Your task to perform on an android device: Open calendar and show me the third week of next month Image 0: 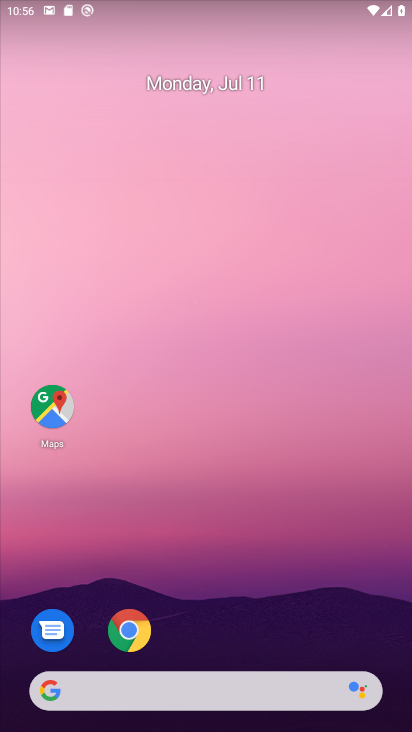
Step 0: drag from (169, 550) to (203, 177)
Your task to perform on an android device: Open calendar and show me the third week of next month Image 1: 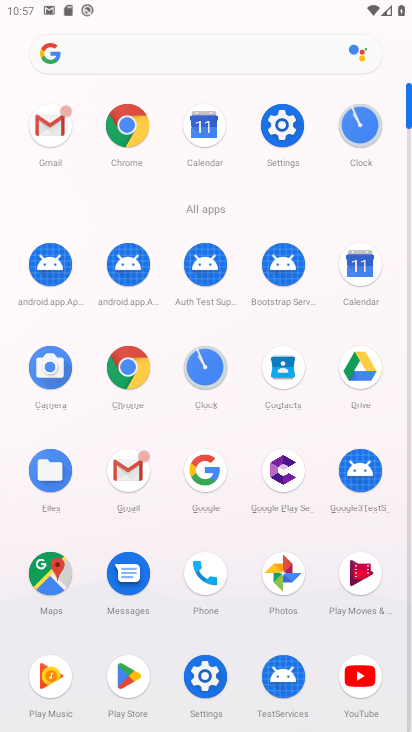
Step 1: drag from (161, 537) to (165, 330)
Your task to perform on an android device: Open calendar and show me the third week of next month Image 2: 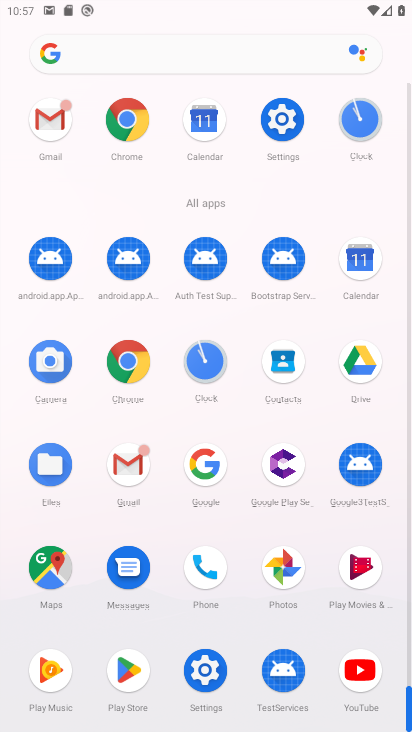
Step 2: click (213, 139)
Your task to perform on an android device: Open calendar and show me the third week of next month Image 3: 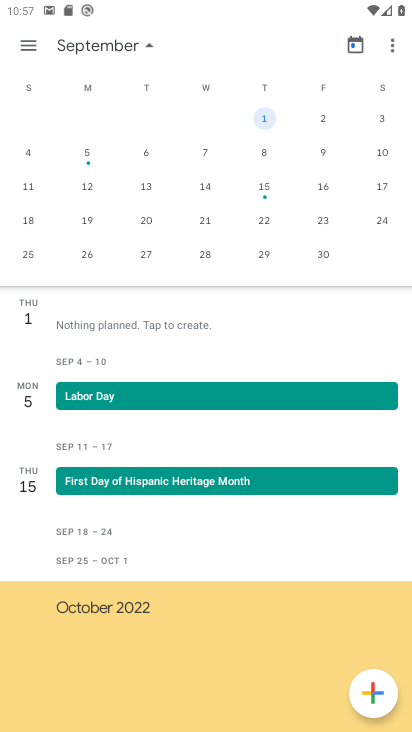
Step 3: drag from (119, 199) to (411, 233)
Your task to perform on an android device: Open calendar and show me the third week of next month Image 4: 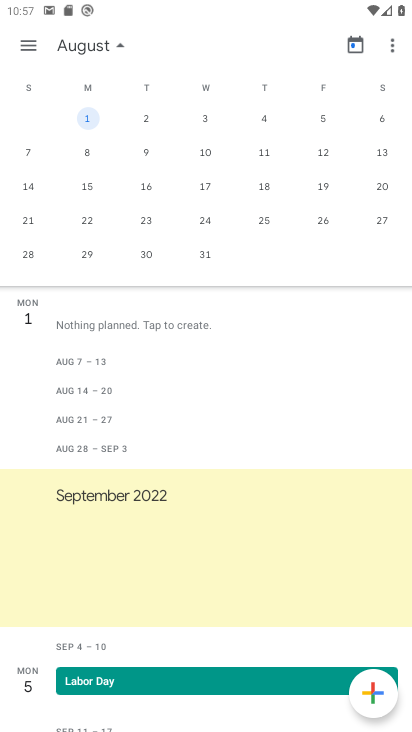
Step 4: click (26, 189)
Your task to perform on an android device: Open calendar and show me the third week of next month Image 5: 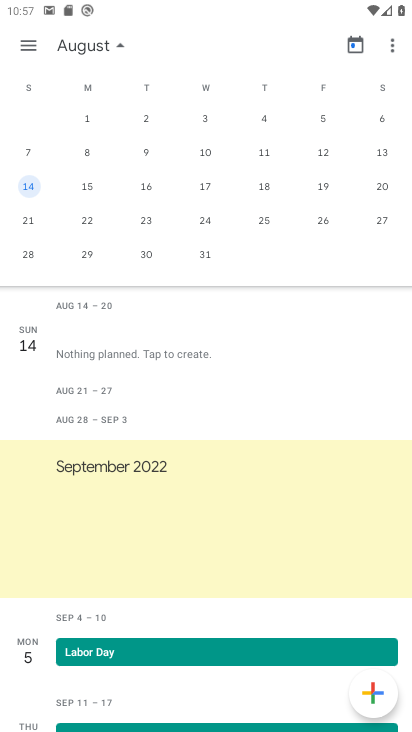
Step 5: task complete